Your task to perform on an android device: check the backup settings in the google photos Image 0: 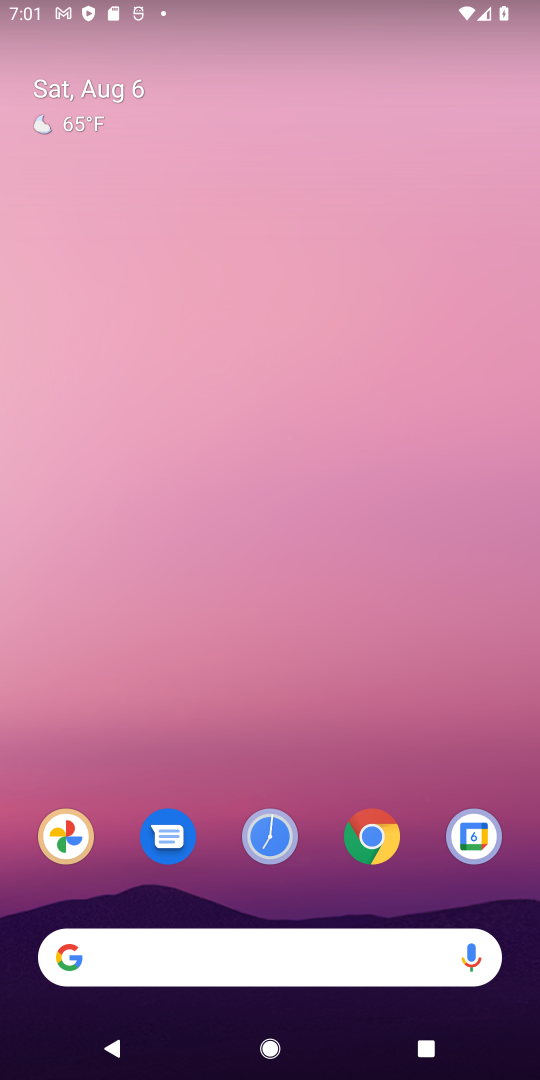
Step 0: drag from (490, 892) to (195, 101)
Your task to perform on an android device: check the backup settings in the google photos Image 1: 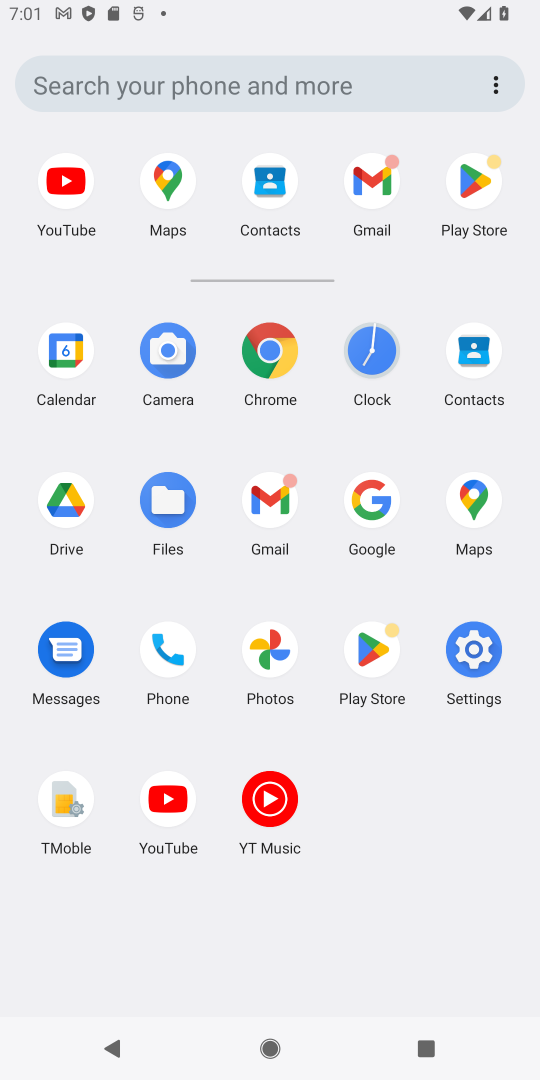
Step 1: click (261, 649)
Your task to perform on an android device: check the backup settings in the google photos Image 2: 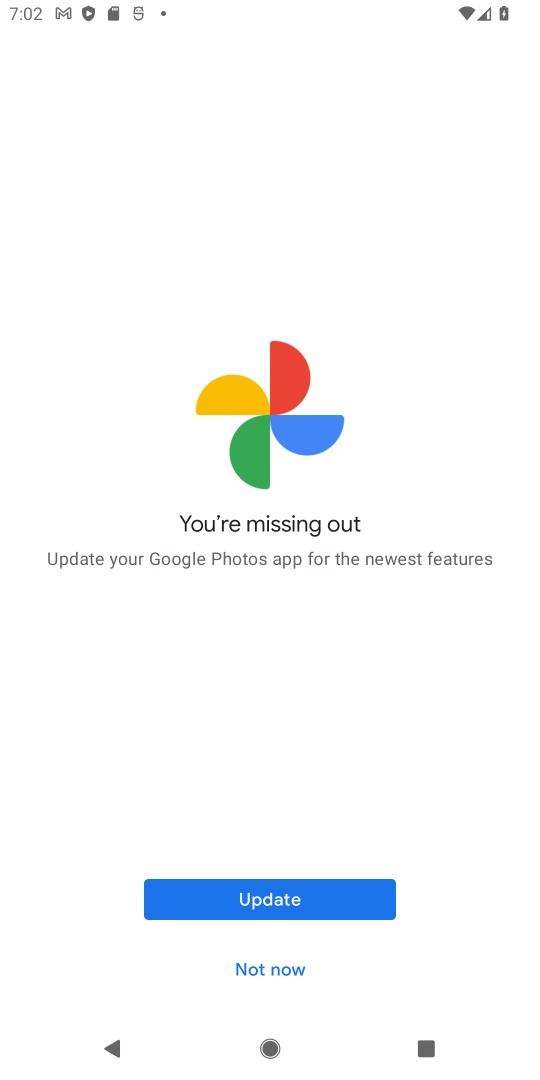
Step 2: click (240, 895)
Your task to perform on an android device: check the backup settings in the google photos Image 3: 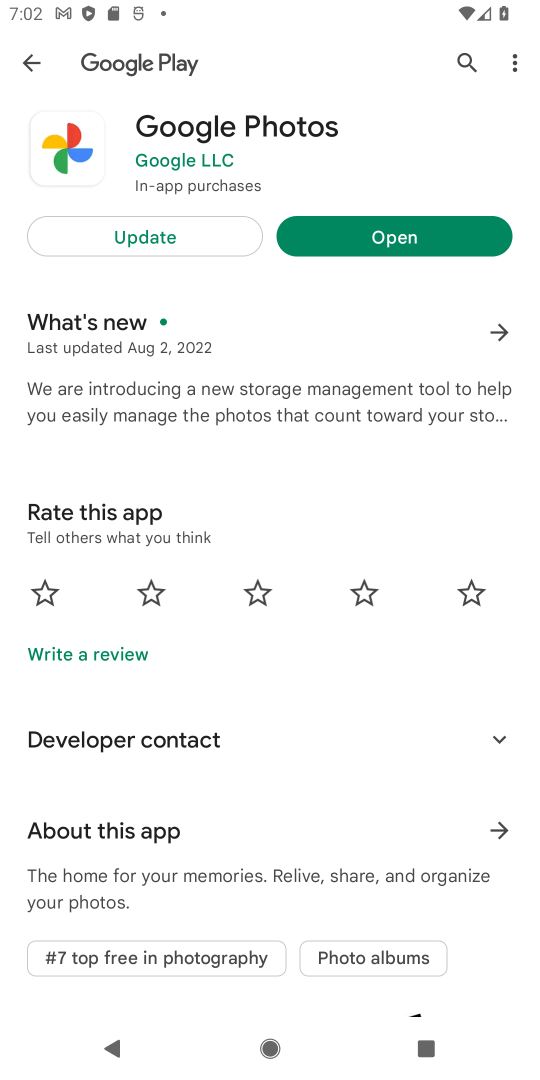
Step 3: click (130, 247)
Your task to perform on an android device: check the backup settings in the google photos Image 4: 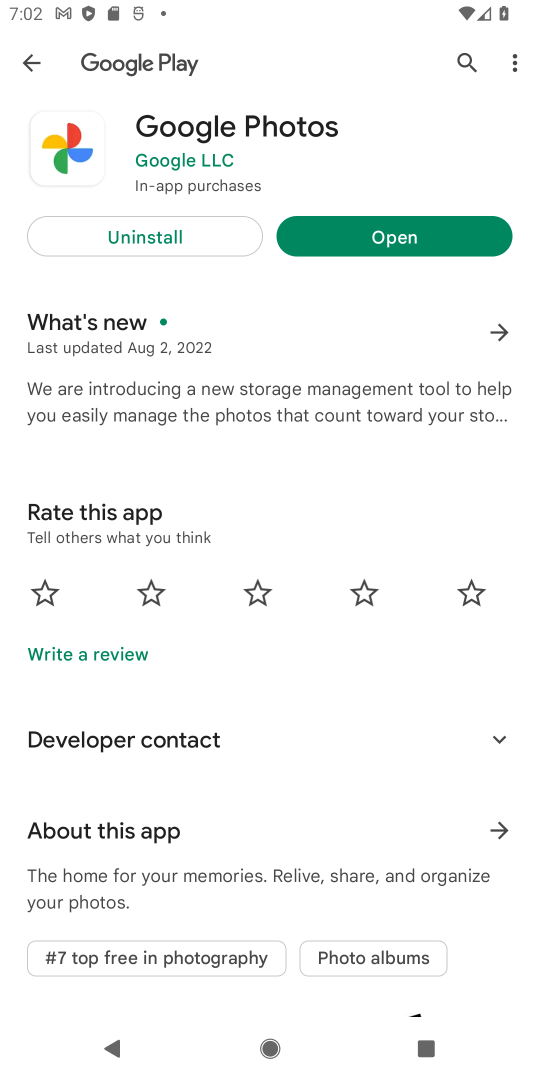
Step 4: click (371, 237)
Your task to perform on an android device: check the backup settings in the google photos Image 5: 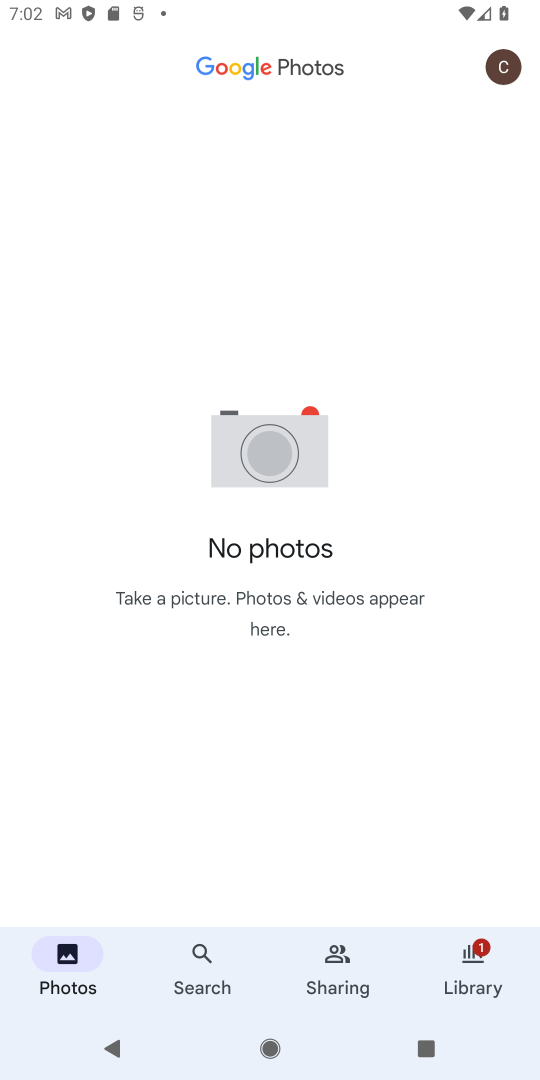
Step 5: click (503, 62)
Your task to perform on an android device: check the backup settings in the google photos Image 6: 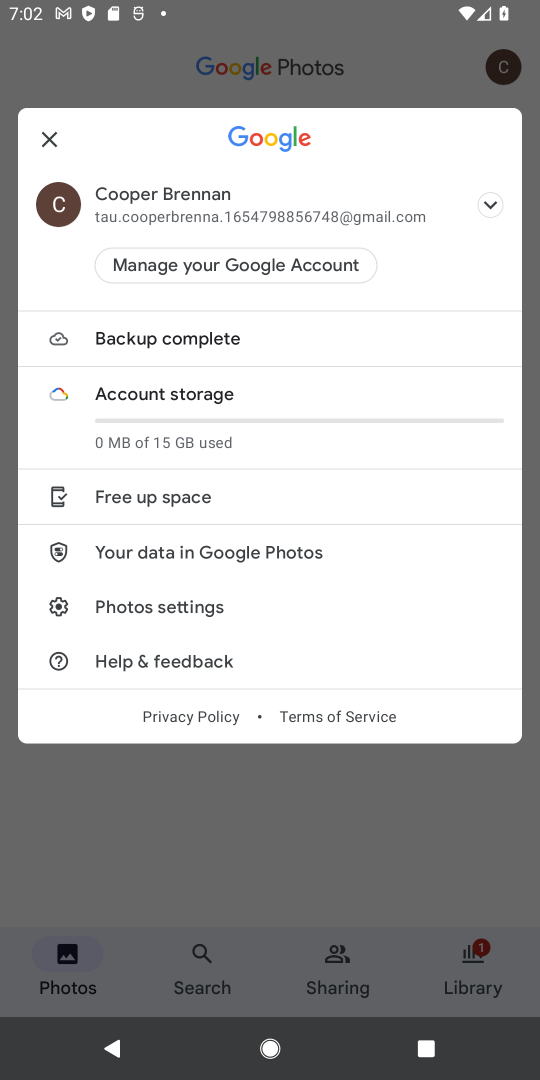
Step 6: click (193, 332)
Your task to perform on an android device: check the backup settings in the google photos Image 7: 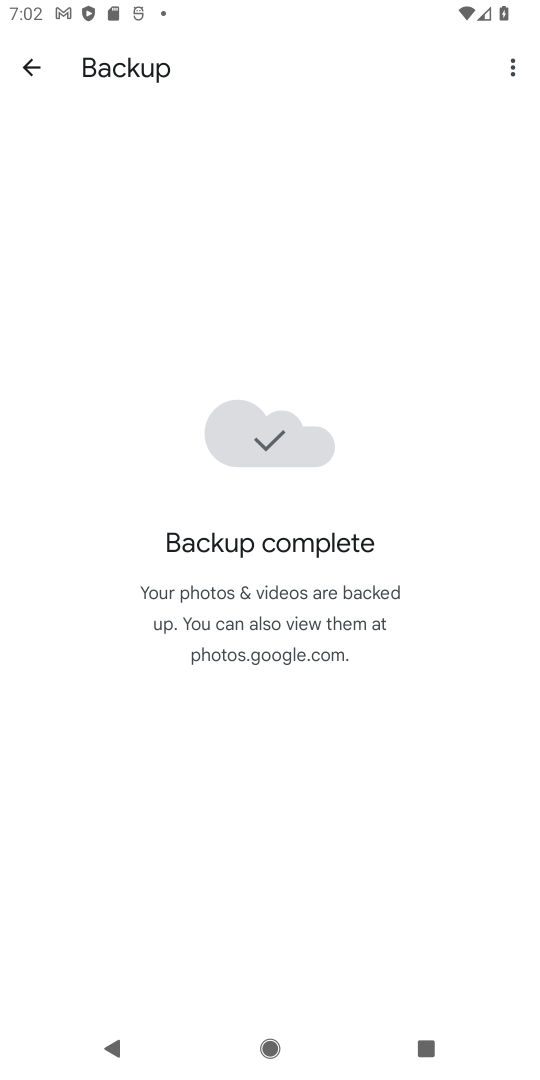
Step 7: task complete